Your task to perform on an android device: Go to Yahoo.com Image 0: 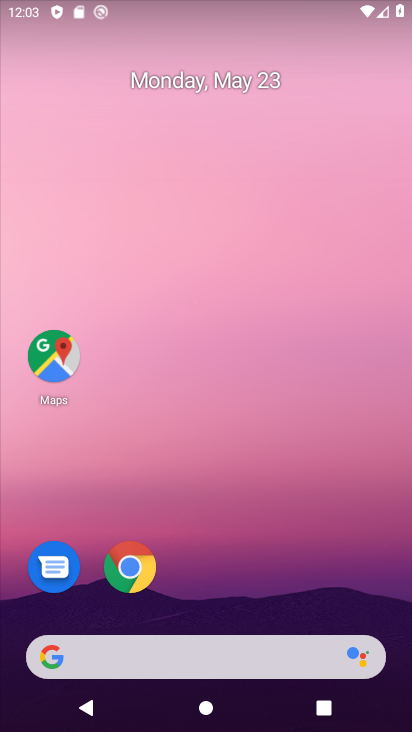
Step 0: click (144, 557)
Your task to perform on an android device: Go to Yahoo.com Image 1: 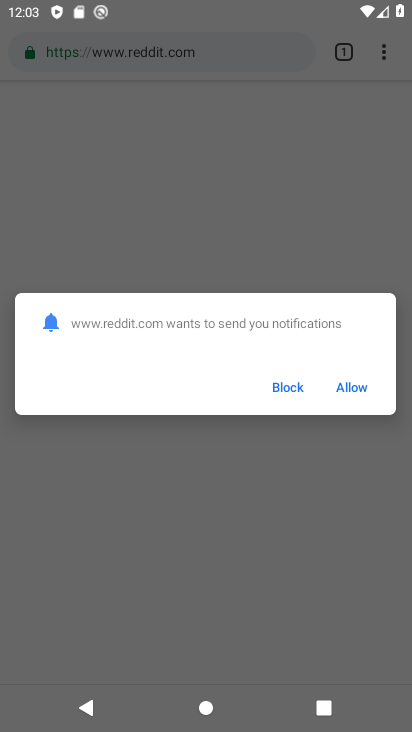
Step 1: click (344, 378)
Your task to perform on an android device: Go to Yahoo.com Image 2: 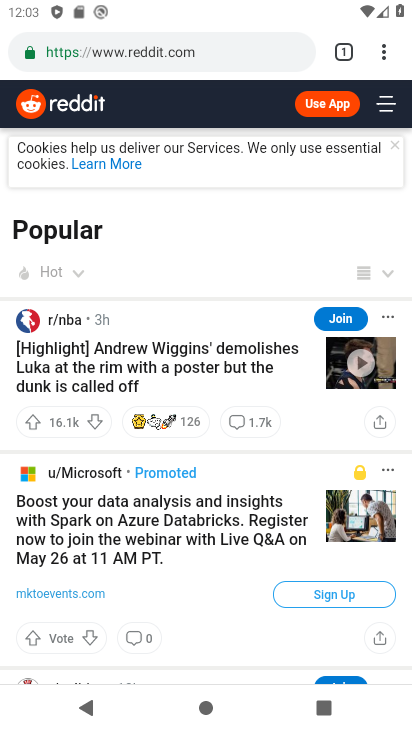
Step 2: click (344, 53)
Your task to perform on an android device: Go to Yahoo.com Image 3: 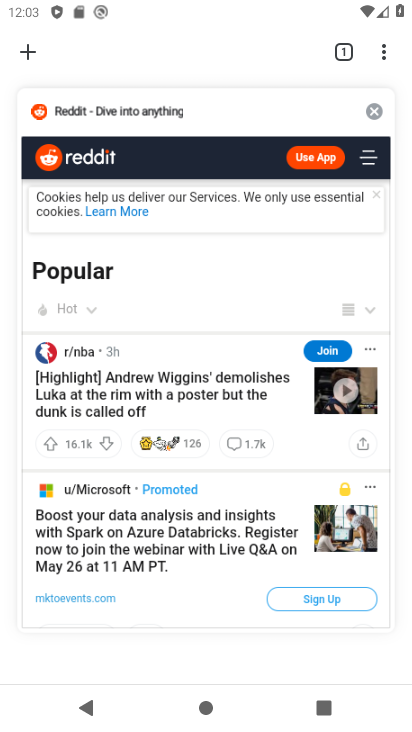
Step 3: click (20, 44)
Your task to perform on an android device: Go to Yahoo.com Image 4: 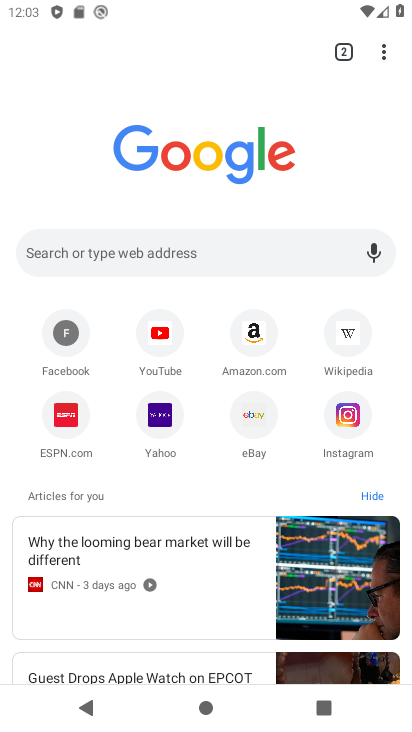
Step 4: click (156, 414)
Your task to perform on an android device: Go to Yahoo.com Image 5: 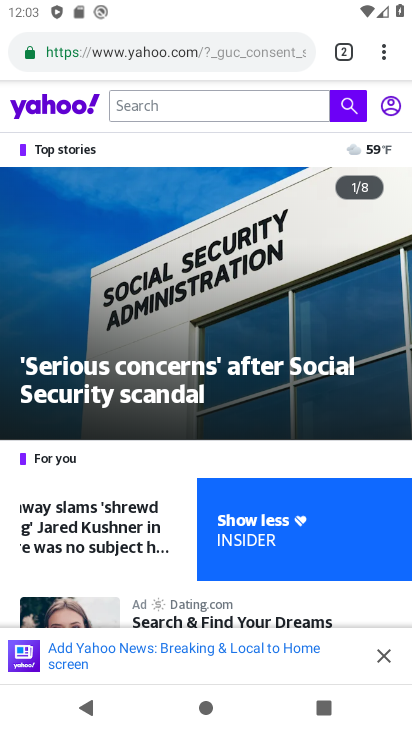
Step 5: click (165, 428)
Your task to perform on an android device: Go to Yahoo.com Image 6: 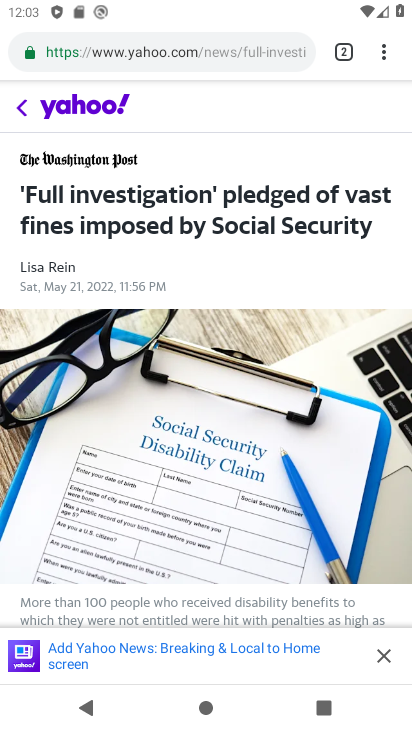
Step 6: task complete